Your task to perform on an android device: Go to Android settings Image 0: 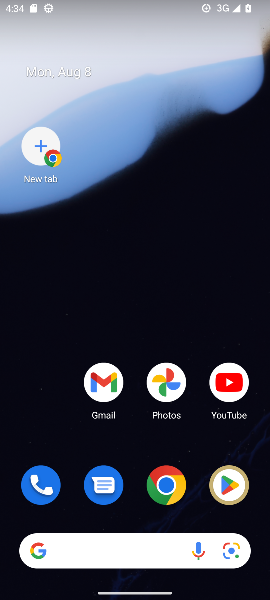
Step 0: click (174, 100)
Your task to perform on an android device: Go to Android settings Image 1: 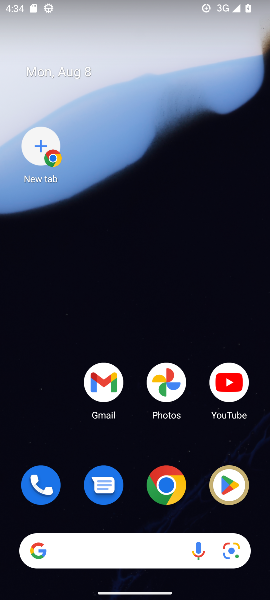
Step 1: drag from (176, 436) to (136, 100)
Your task to perform on an android device: Go to Android settings Image 2: 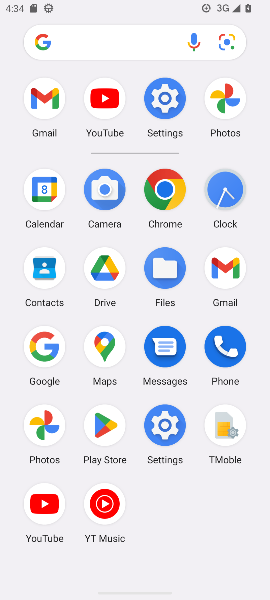
Step 2: drag from (135, 353) to (132, 21)
Your task to perform on an android device: Go to Android settings Image 3: 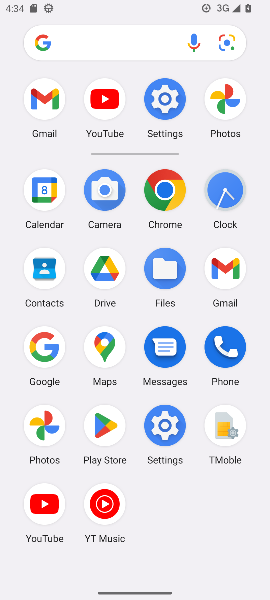
Step 3: click (166, 429)
Your task to perform on an android device: Go to Android settings Image 4: 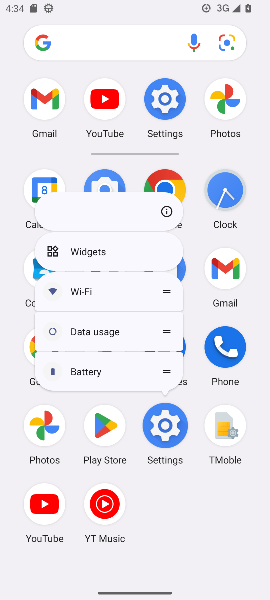
Step 4: click (165, 431)
Your task to perform on an android device: Go to Android settings Image 5: 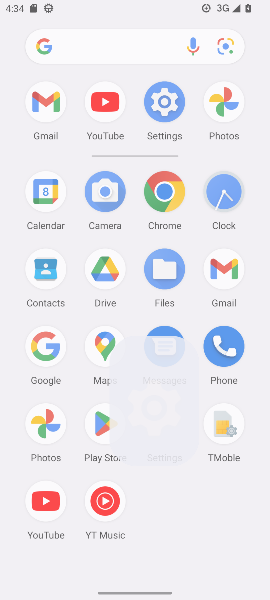
Step 5: click (161, 435)
Your task to perform on an android device: Go to Android settings Image 6: 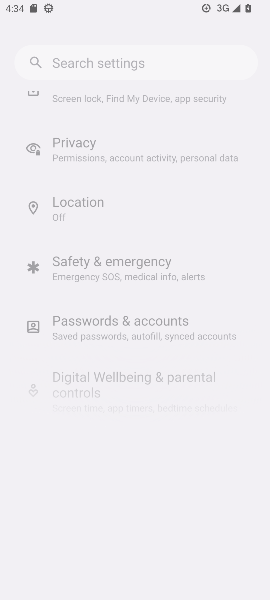
Step 6: click (164, 437)
Your task to perform on an android device: Go to Android settings Image 7: 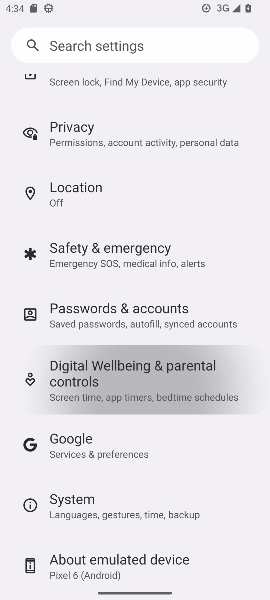
Step 7: click (165, 436)
Your task to perform on an android device: Go to Android settings Image 8: 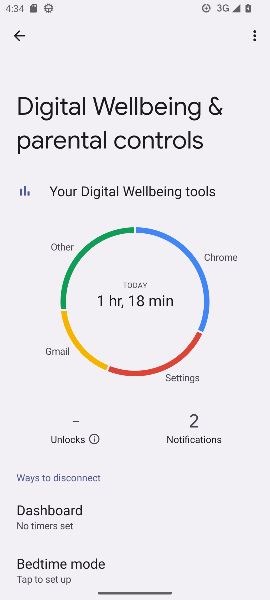
Step 8: click (13, 30)
Your task to perform on an android device: Go to Android settings Image 9: 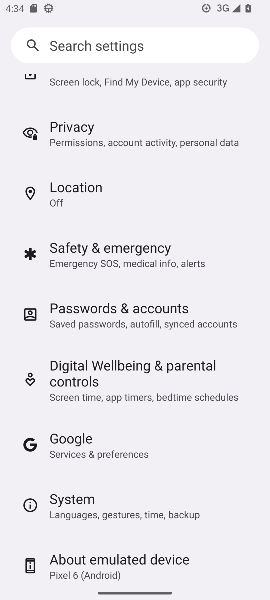
Step 9: task complete